Your task to perform on an android device: toggle notification dots Image 0: 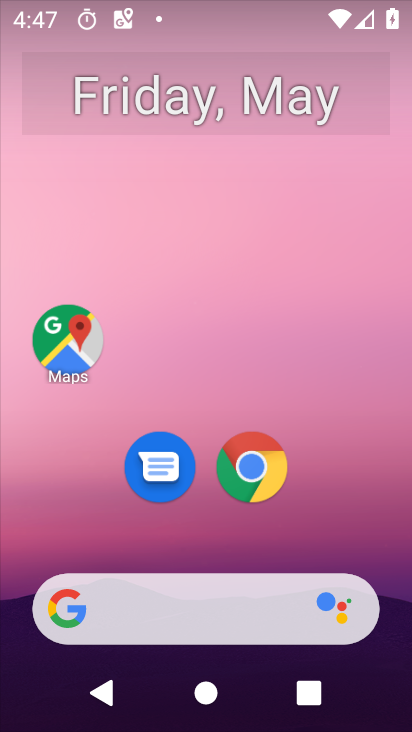
Step 0: drag from (344, 506) to (312, 79)
Your task to perform on an android device: toggle notification dots Image 1: 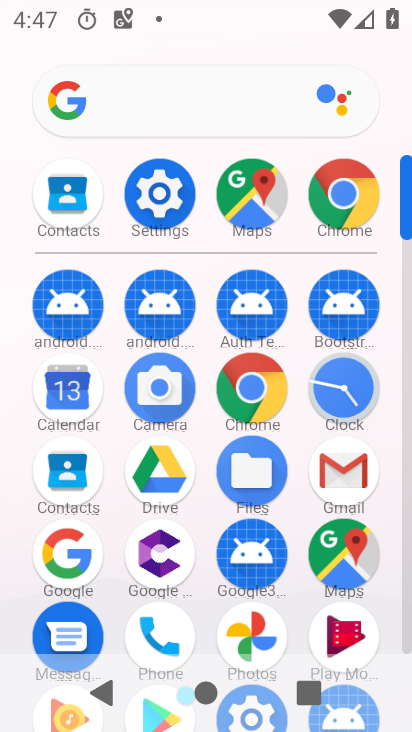
Step 1: click (171, 202)
Your task to perform on an android device: toggle notification dots Image 2: 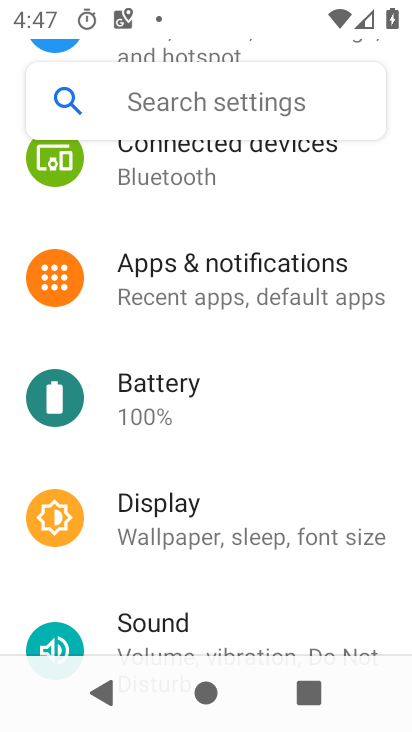
Step 2: click (275, 291)
Your task to perform on an android device: toggle notification dots Image 3: 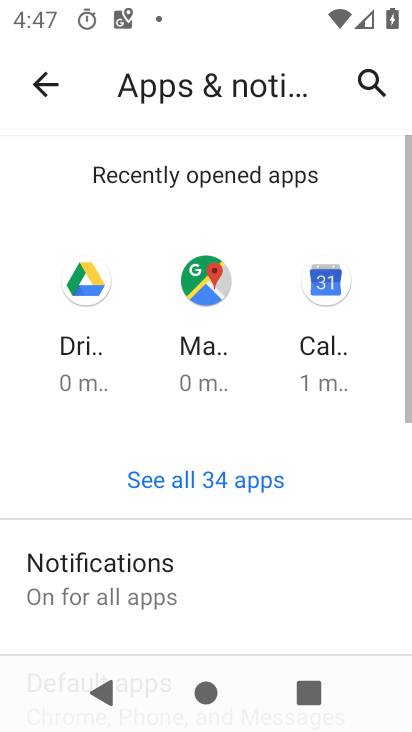
Step 3: drag from (244, 574) to (215, 16)
Your task to perform on an android device: toggle notification dots Image 4: 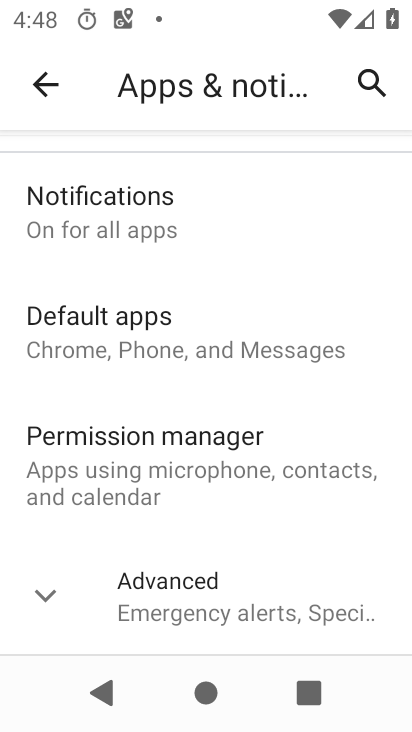
Step 4: click (211, 590)
Your task to perform on an android device: toggle notification dots Image 5: 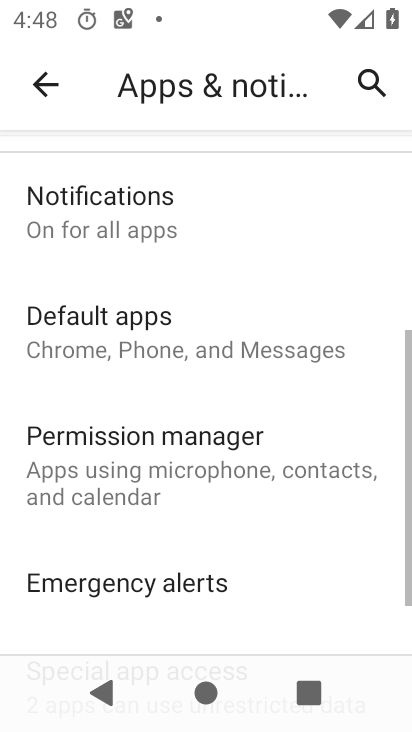
Step 5: drag from (246, 569) to (263, 123)
Your task to perform on an android device: toggle notification dots Image 6: 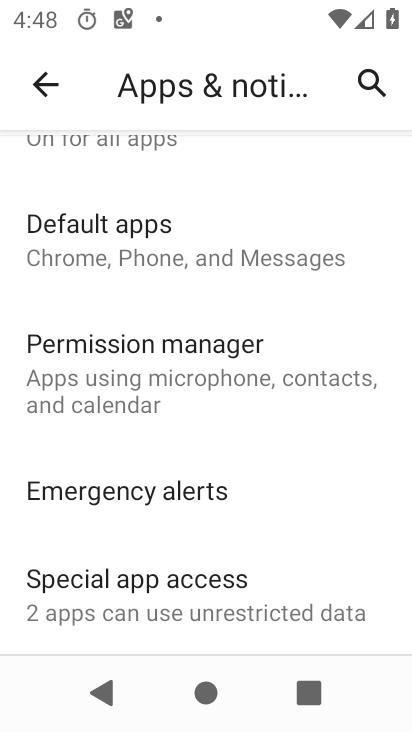
Step 6: drag from (194, 204) to (205, 460)
Your task to perform on an android device: toggle notification dots Image 7: 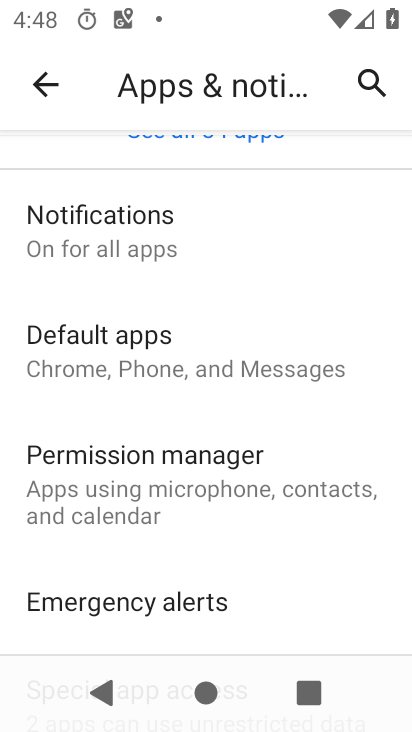
Step 7: click (147, 224)
Your task to perform on an android device: toggle notification dots Image 8: 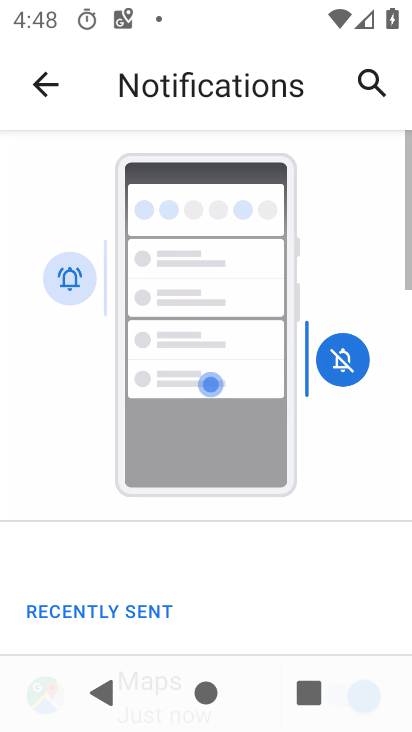
Step 8: drag from (276, 557) to (209, 39)
Your task to perform on an android device: toggle notification dots Image 9: 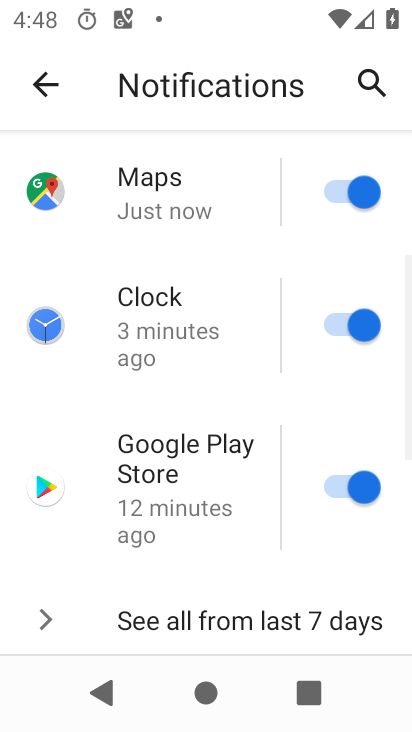
Step 9: drag from (208, 552) to (134, 44)
Your task to perform on an android device: toggle notification dots Image 10: 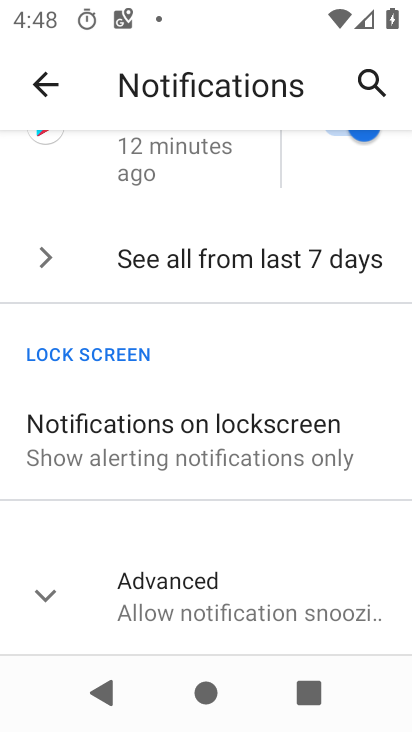
Step 10: drag from (166, 465) to (171, 109)
Your task to perform on an android device: toggle notification dots Image 11: 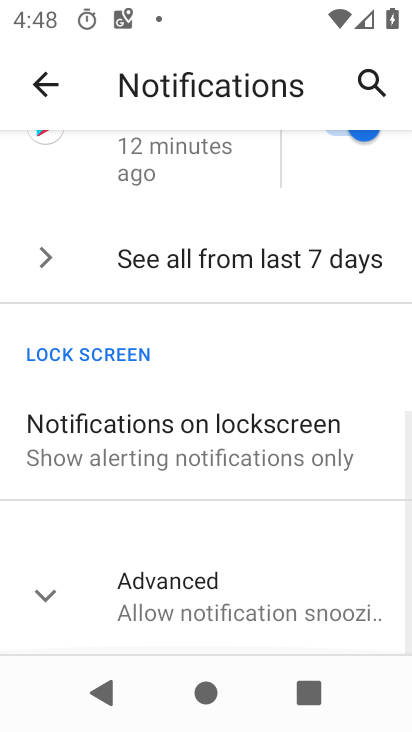
Step 11: click (161, 596)
Your task to perform on an android device: toggle notification dots Image 12: 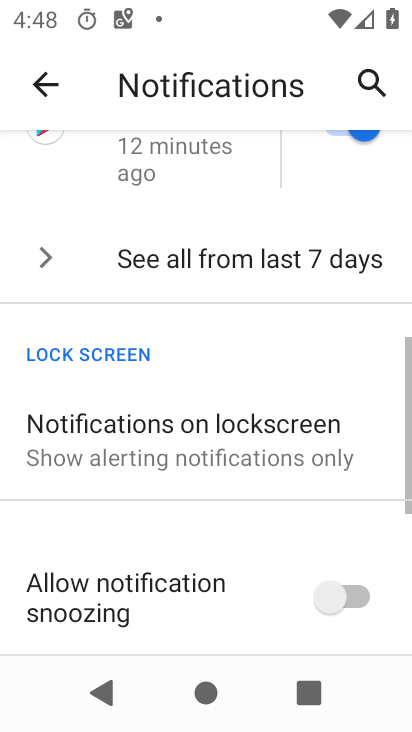
Step 12: drag from (288, 515) to (213, 175)
Your task to perform on an android device: toggle notification dots Image 13: 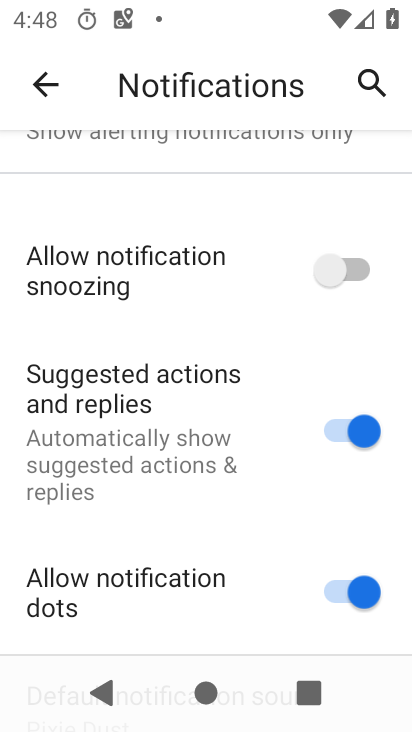
Step 13: click (356, 598)
Your task to perform on an android device: toggle notification dots Image 14: 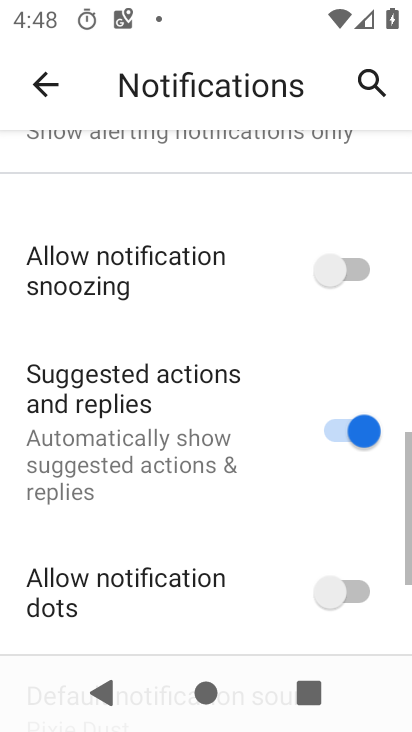
Step 14: task complete